Your task to perform on an android device: Search for vegetarian restaurants on Maps Image 0: 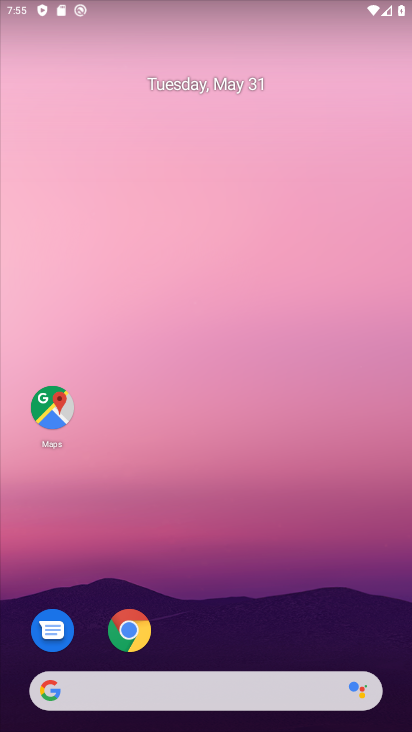
Step 0: click (55, 393)
Your task to perform on an android device: Search for vegetarian restaurants on Maps Image 1: 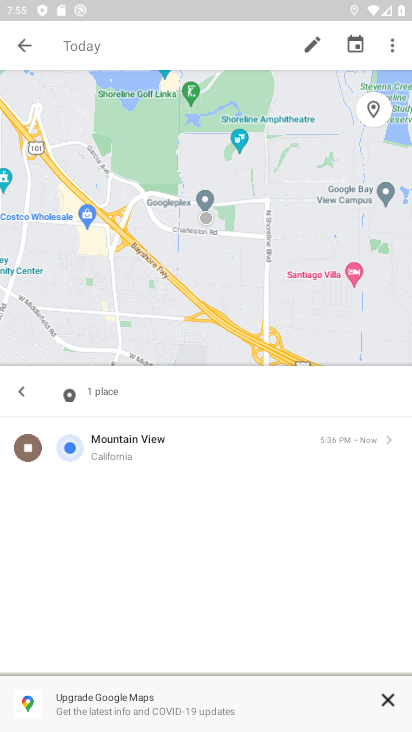
Step 1: click (32, 44)
Your task to perform on an android device: Search for vegetarian restaurants on Maps Image 2: 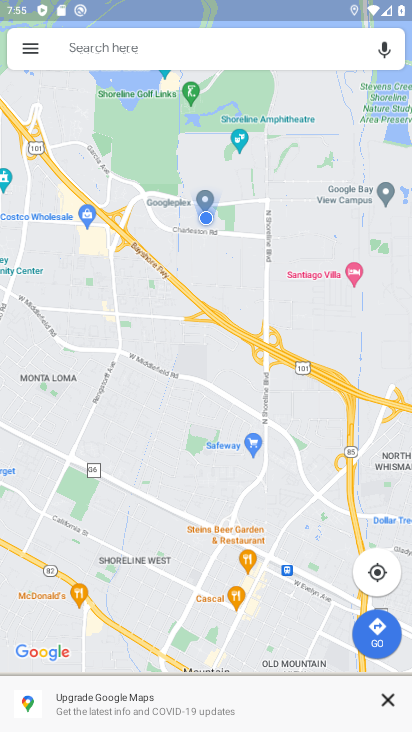
Step 2: click (154, 35)
Your task to perform on an android device: Search for vegetarian restaurants on Maps Image 3: 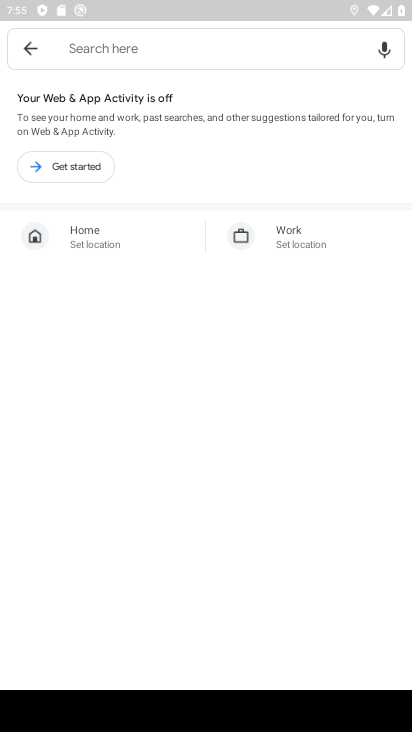
Step 3: click (199, 47)
Your task to perform on an android device: Search for vegetarian restaurants on Maps Image 4: 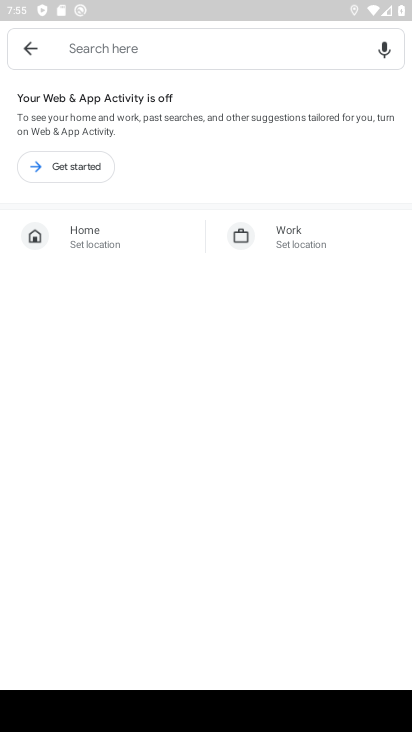
Step 4: type "vegetarian restaurants "
Your task to perform on an android device: Search for vegetarian restaurants on Maps Image 5: 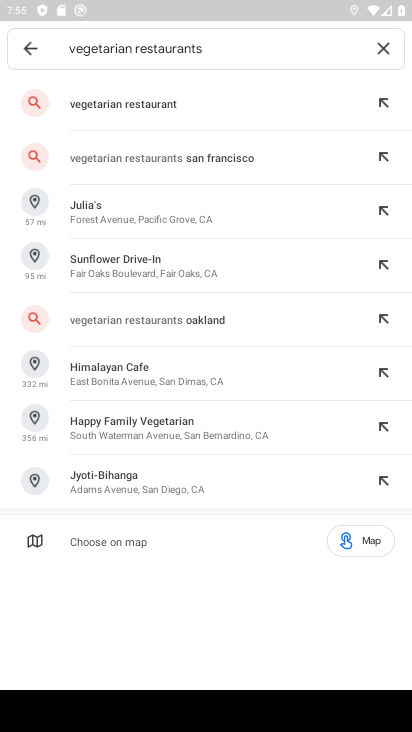
Step 5: click (143, 108)
Your task to perform on an android device: Search for vegetarian restaurants on Maps Image 6: 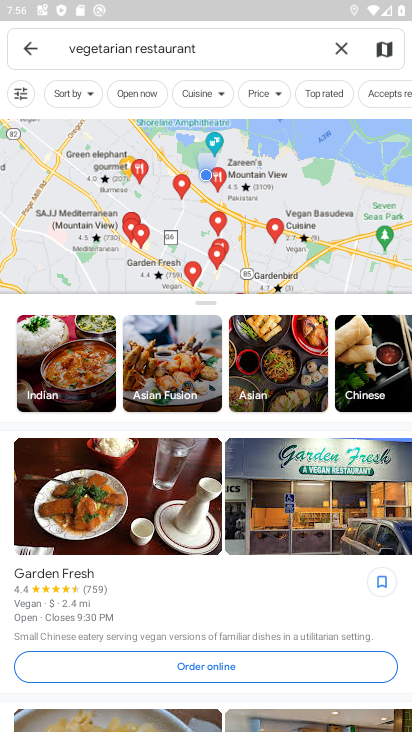
Step 6: task complete